Your task to perform on an android device: change the clock display to digital Image 0: 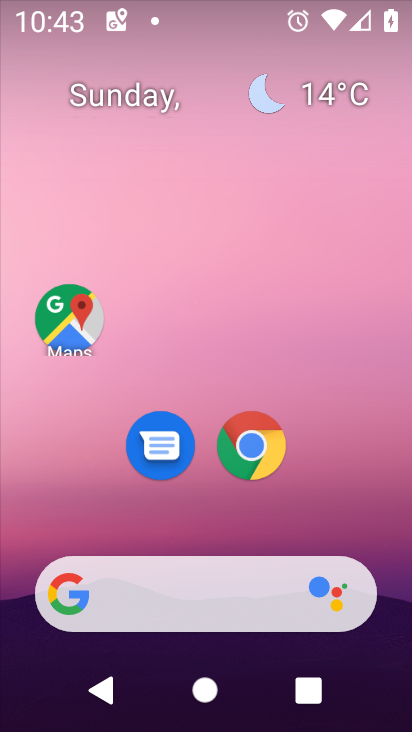
Step 0: press home button
Your task to perform on an android device: change the clock display to digital Image 1: 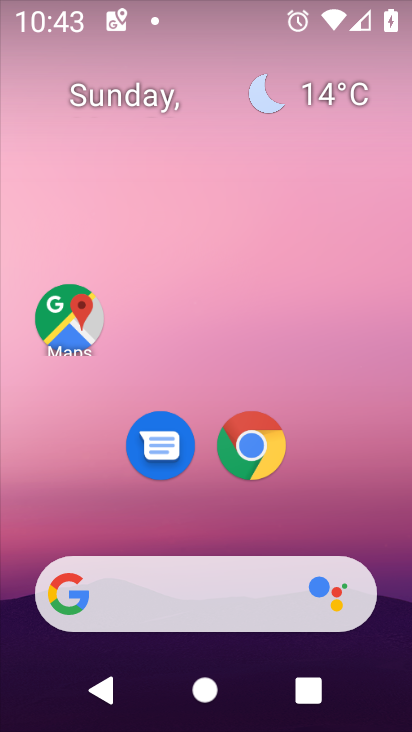
Step 1: drag from (189, 508) to (286, 164)
Your task to perform on an android device: change the clock display to digital Image 2: 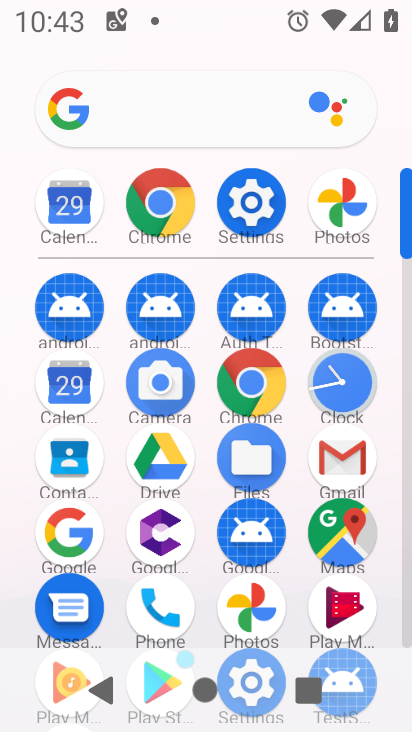
Step 2: click (344, 380)
Your task to perform on an android device: change the clock display to digital Image 3: 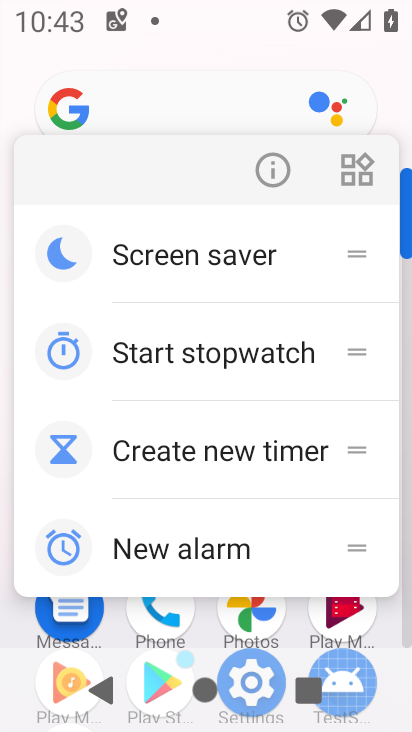
Step 3: click (275, 172)
Your task to perform on an android device: change the clock display to digital Image 4: 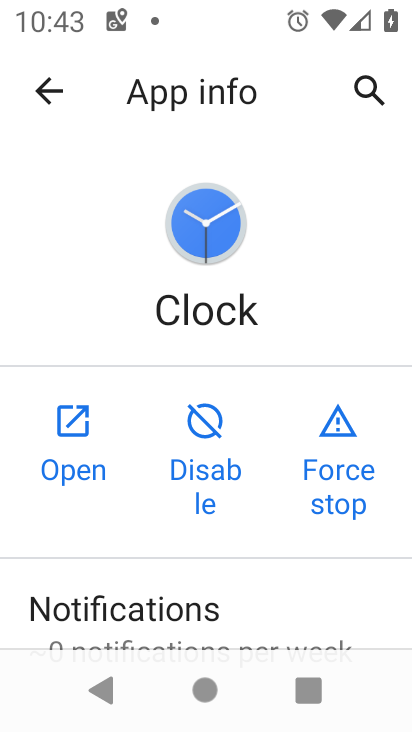
Step 4: click (60, 441)
Your task to perform on an android device: change the clock display to digital Image 5: 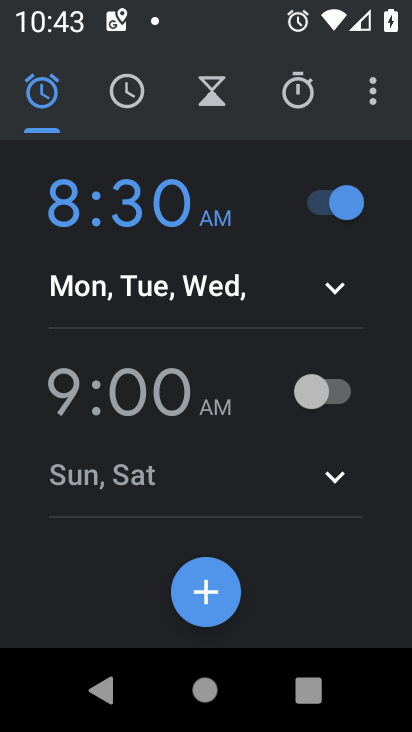
Step 5: drag from (373, 89) to (172, 184)
Your task to perform on an android device: change the clock display to digital Image 6: 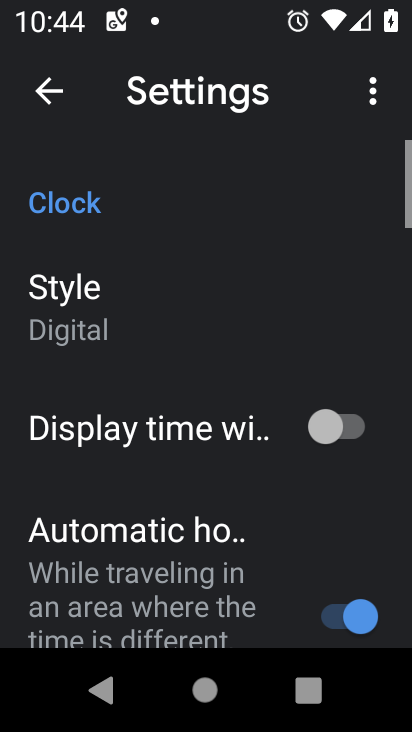
Step 6: click (95, 321)
Your task to perform on an android device: change the clock display to digital Image 7: 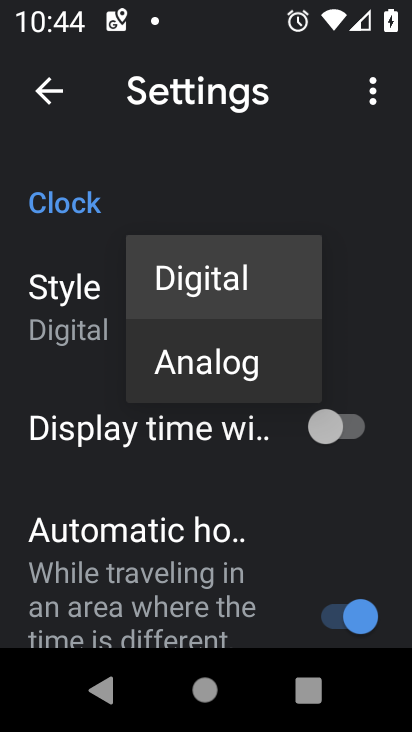
Step 7: click (192, 287)
Your task to perform on an android device: change the clock display to digital Image 8: 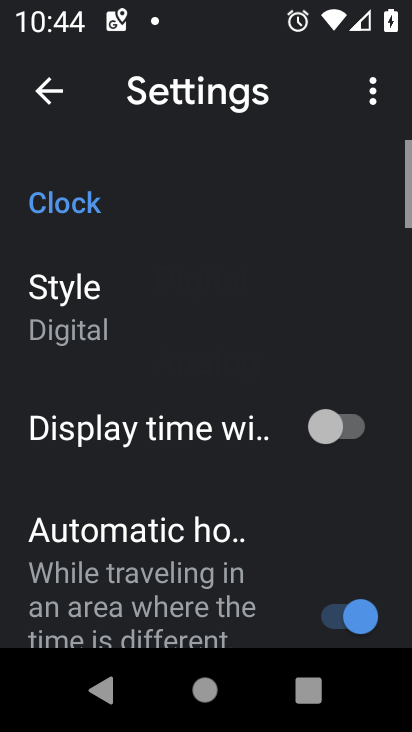
Step 8: task complete